Your task to perform on an android device: Add razer blade to the cart on costco Image 0: 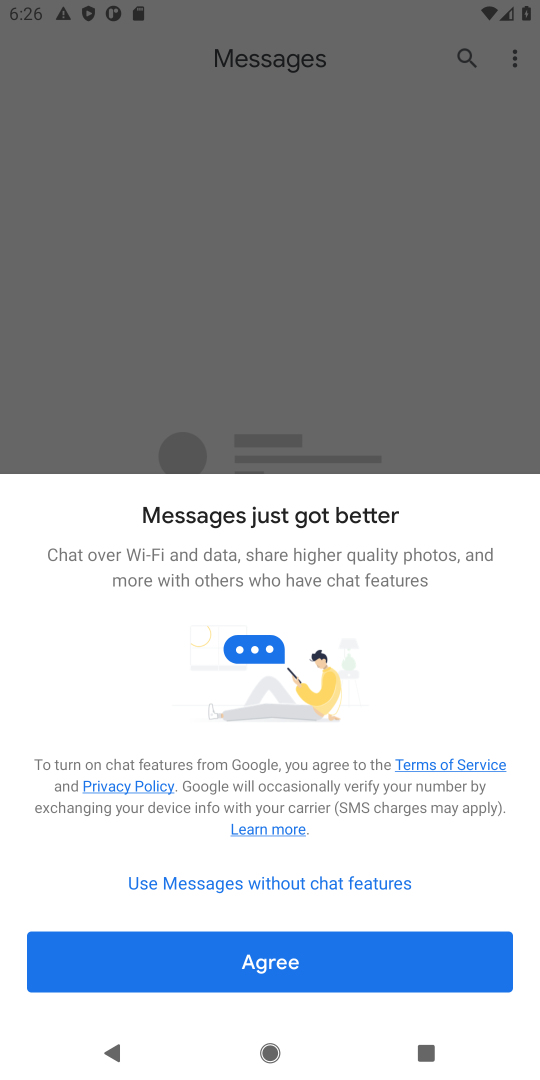
Step 0: press home button
Your task to perform on an android device: Add razer blade to the cart on costco Image 1: 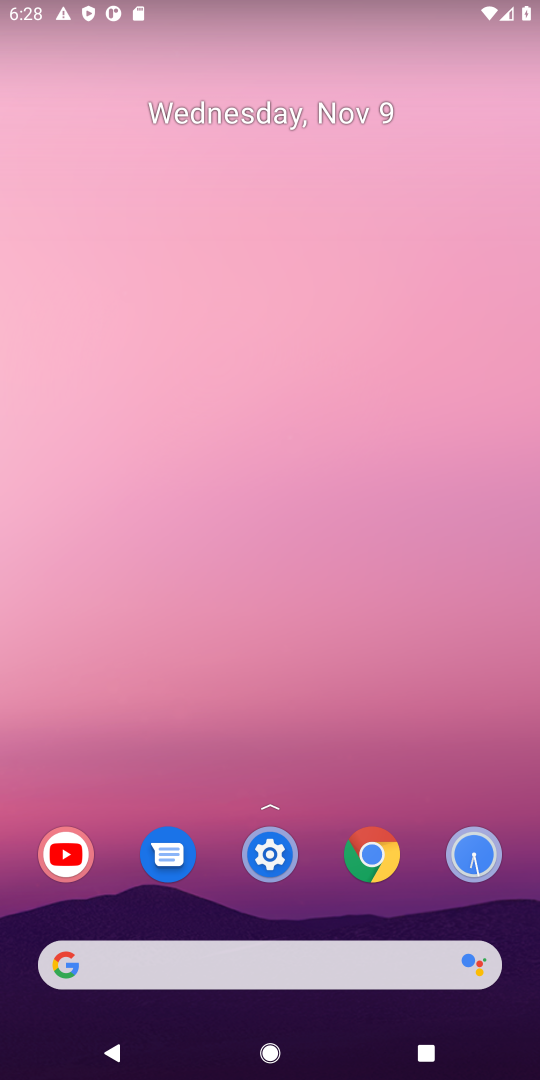
Step 1: click (174, 971)
Your task to perform on an android device: Add razer blade to the cart on costco Image 2: 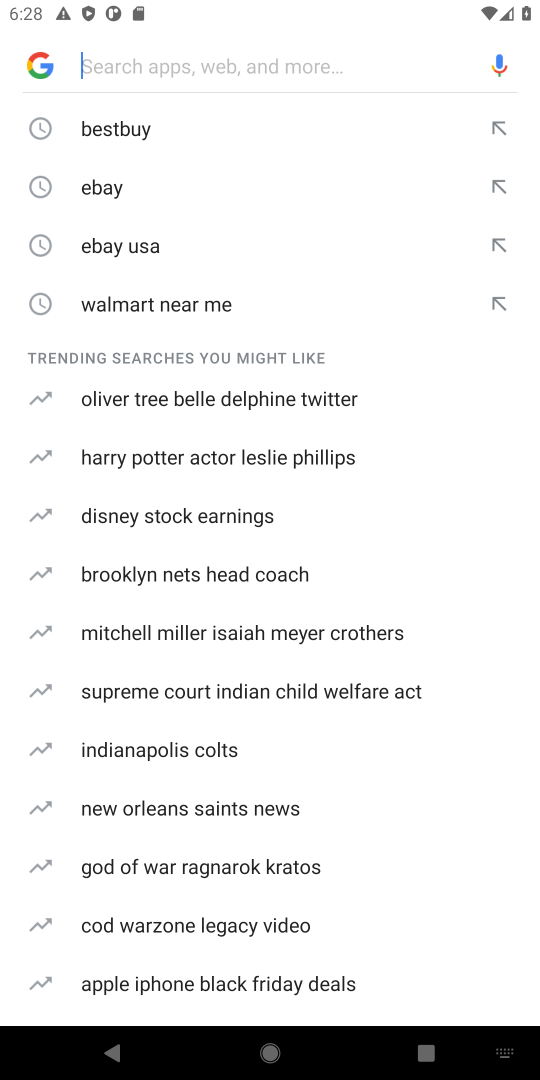
Step 2: type "costco"
Your task to perform on an android device: Add razer blade to the cart on costco Image 3: 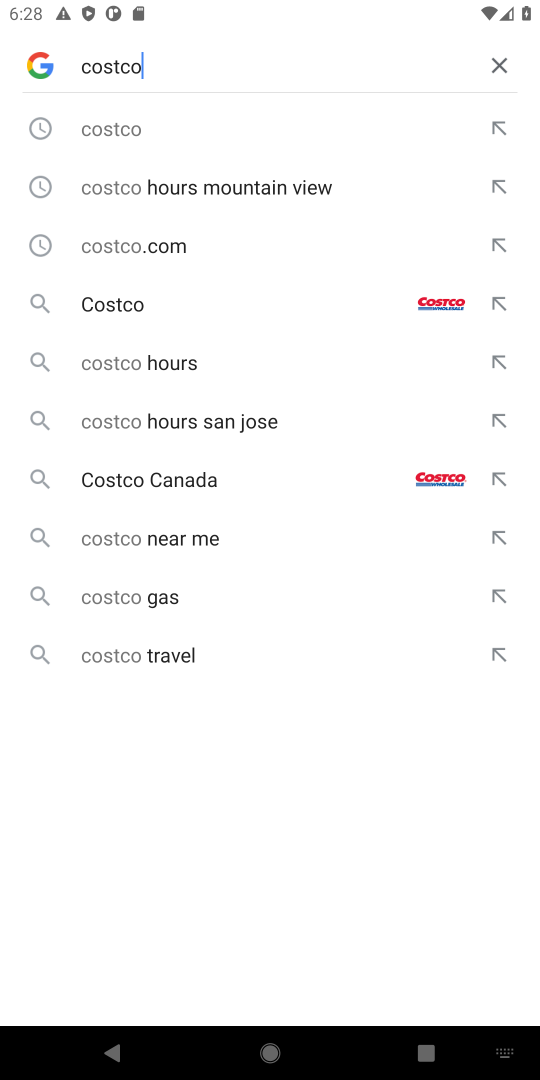
Step 3: click (233, 135)
Your task to perform on an android device: Add razer blade to the cart on costco Image 4: 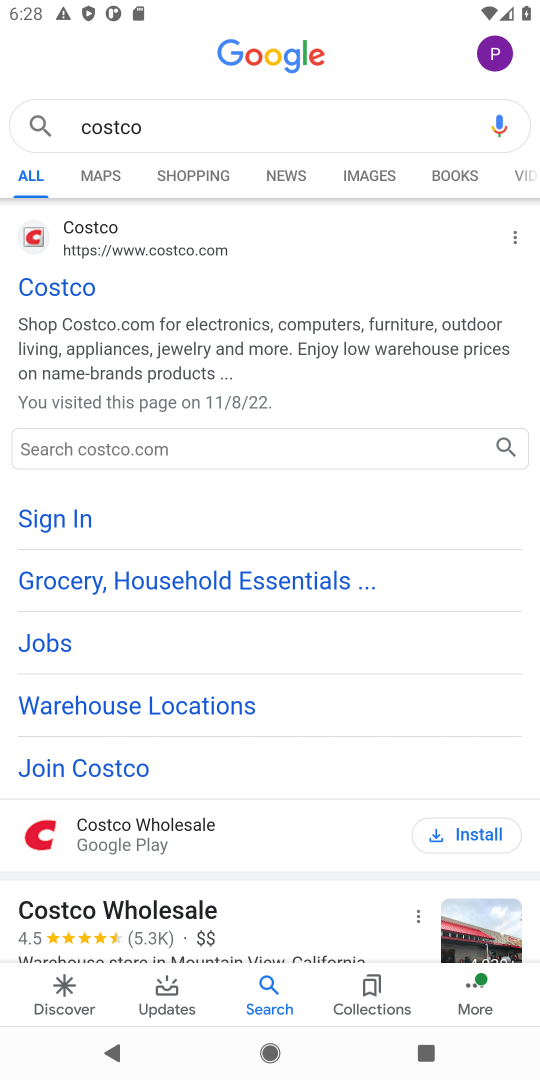
Step 4: click (81, 292)
Your task to perform on an android device: Add razer blade to the cart on costco Image 5: 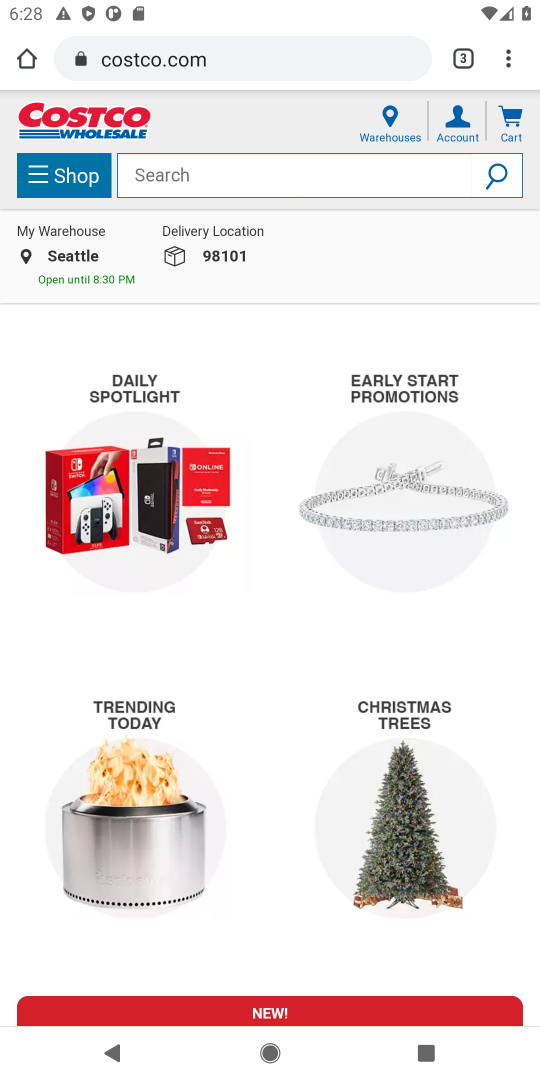
Step 5: task complete